Your task to perform on an android device: toggle wifi Image 0: 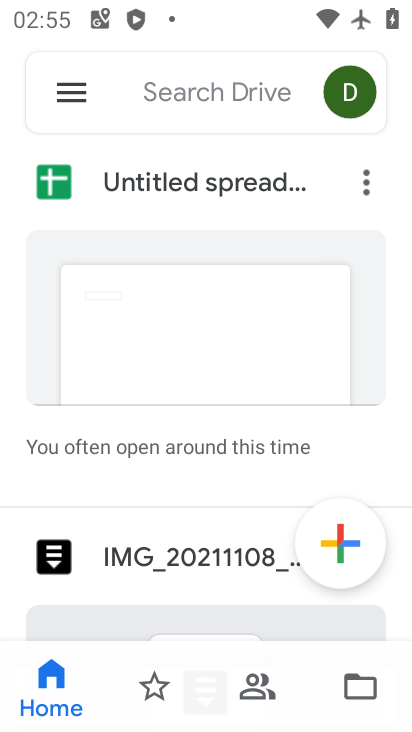
Step 0: press home button
Your task to perform on an android device: toggle wifi Image 1: 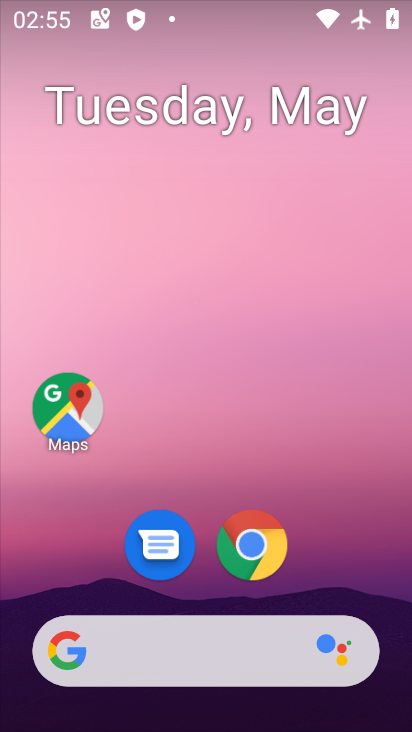
Step 1: drag from (400, 618) to (367, 209)
Your task to perform on an android device: toggle wifi Image 2: 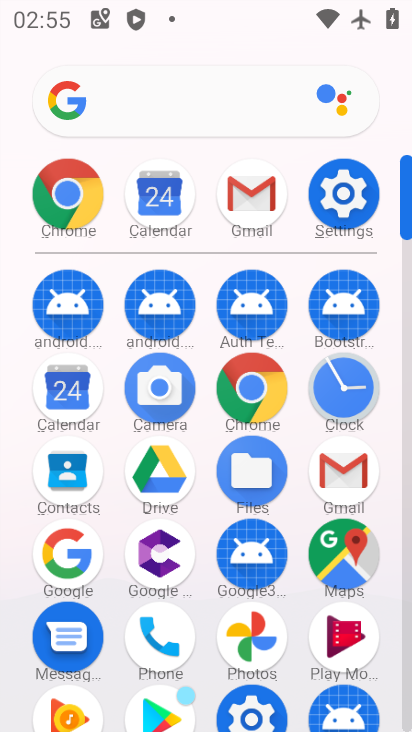
Step 2: click (405, 692)
Your task to perform on an android device: toggle wifi Image 3: 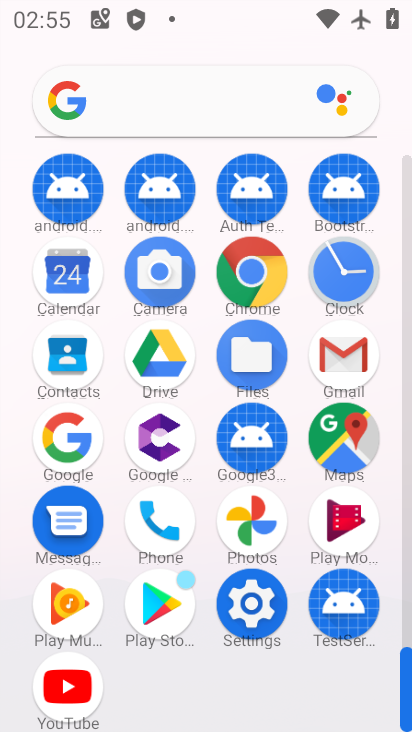
Step 3: click (248, 596)
Your task to perform on an android device: toggle wifi Image 4: 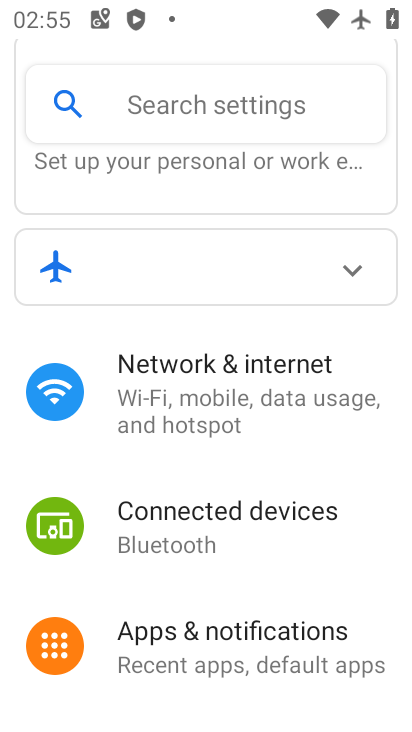
Step 4: click (172, 365)
Your task to perform on an android device: toggle wifi Image 5: 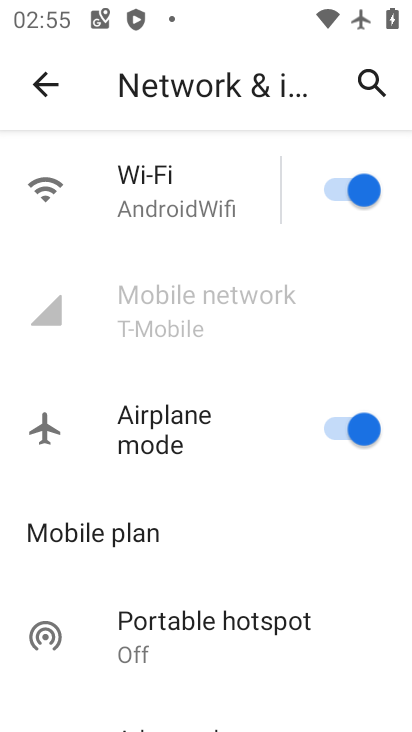
Step 5: click (341, 193)
Your task to perform on an android device: toggle wifi Image 6: 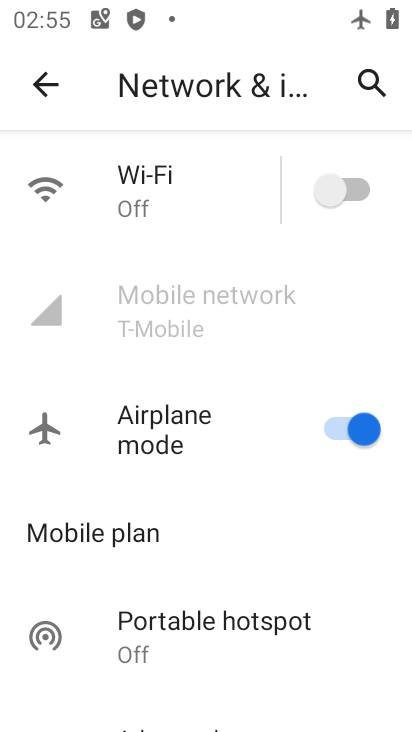
Step 6: task complete